Your task to perform on an android device: turn off data saver in the chrome app Image 0: 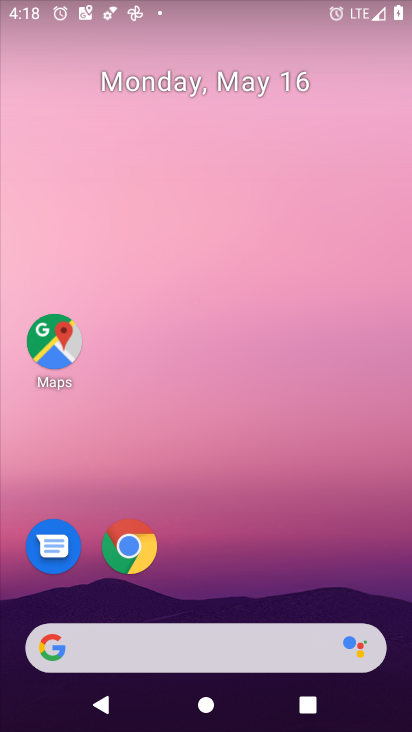
Step 0: drag from (360, 587) to (360, 126)
Your task to perform on an android device: turn off data saver in the chrome app Image 1: 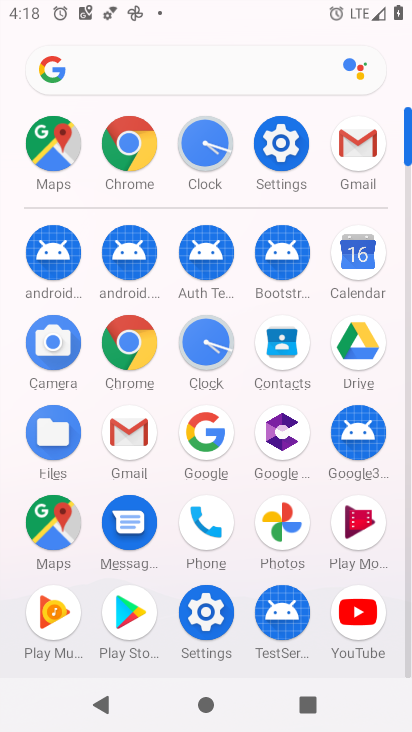
Step 1: click (128, 353)
Your task to perform on an android device: turn off data saver in the chrome app Image 2: 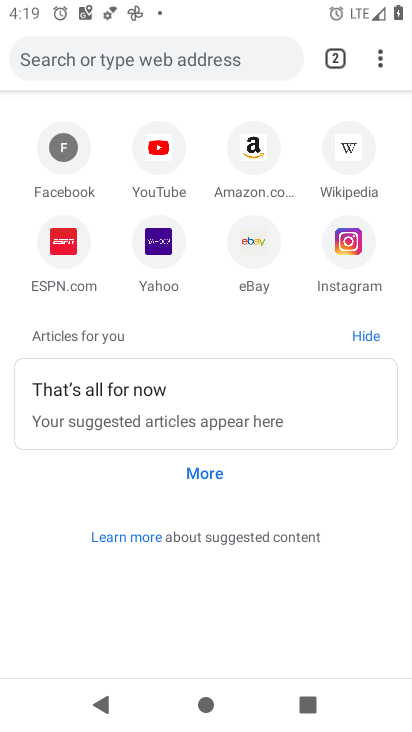
Step 2: click (382, 64)
Your task to perform on an android device: turn off data saver in the chrome app Image 3: 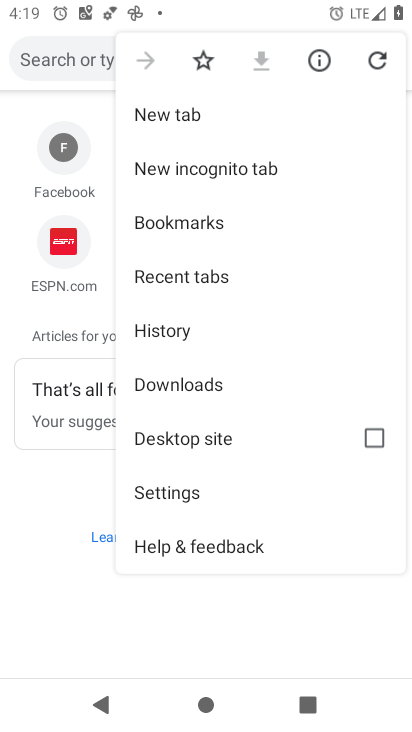
Step 3: drag from (277, 519) to (294, 343)
Your task to perform on an android device: turn off data saver in the chrome app Image 4: 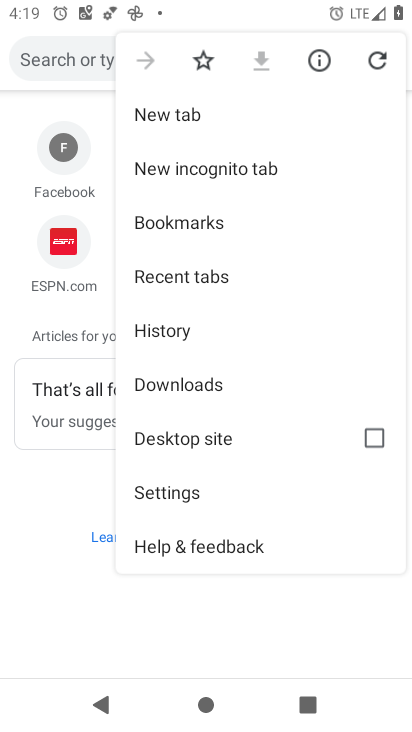
Step 4: click (191, 496)
Your task to perform on an android device: turn off data saver in the chrome app Image 5: 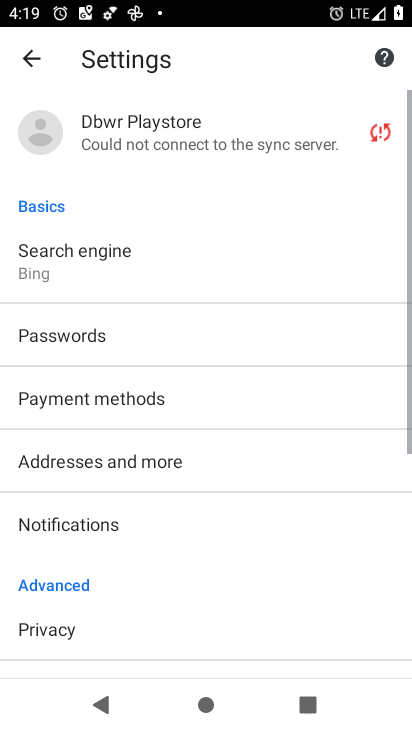
Step 5: drag from (252, 593) to (262, 445)
Your task to perform on an android device: turn off data saver in the chrome app Image 6: 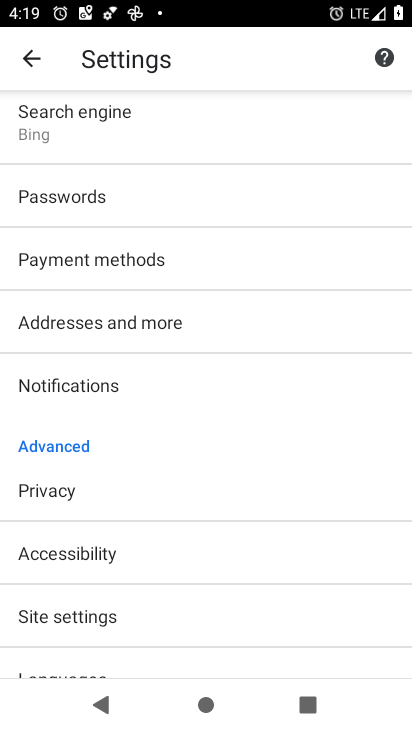
Step 6: drag from (255, 628) to (265, 462)
Your task to perform on an android device: turn off data saver in the chrome app Image 7: 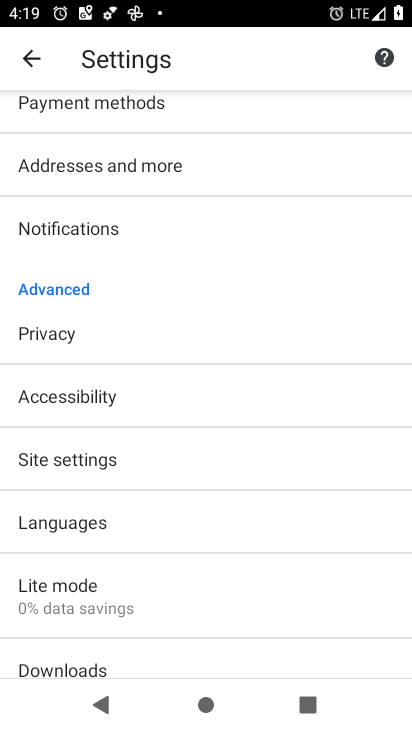
Step 7: drag from (255, 642) to (266, 511)
Your task to perform on an android device: turn off data saver in the chrome app Image 8: 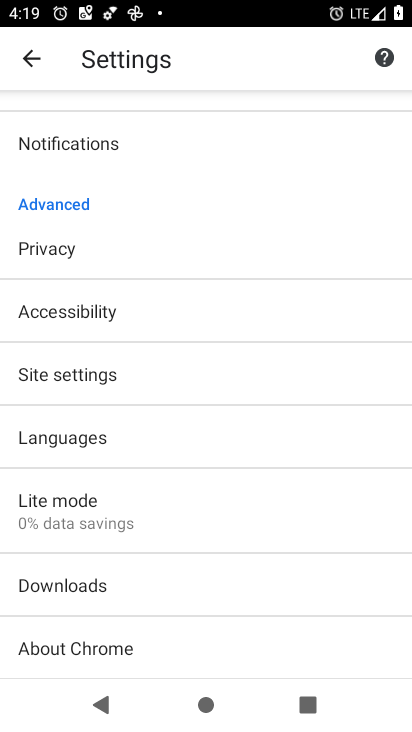
Step 8: drag from (246, 657) to (256, 521)
Your task to perform on an android device: turn off data saver in the chrome app Image 9: 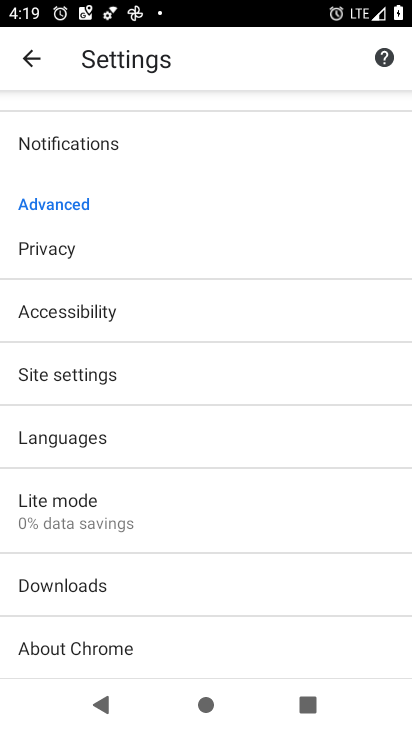
Step 9: drag from (268, 359) to (260, 497)
Your task to perform on an android device: turn off data saver in the chrome app Image 10: 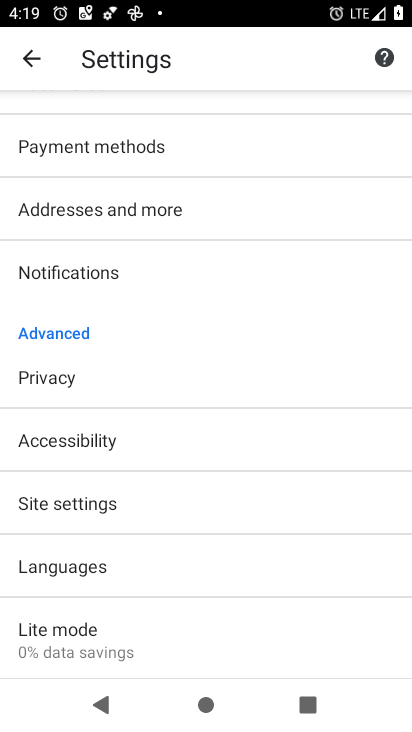
Step 10: drag from (264, 253) to (263, 425)
Your task to perform on an android device: turn off data saver in the chrome app Image 11: 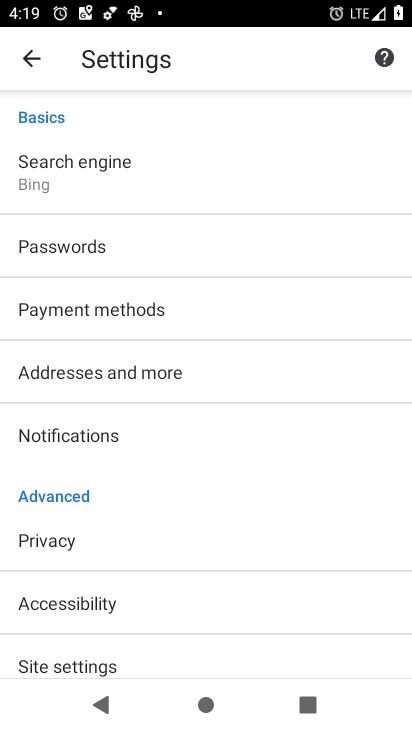
Step 11: drag from (270, 278) to (272, 375)
Your task to perform on an android device: turn off data saver in the chrome app Image 12: 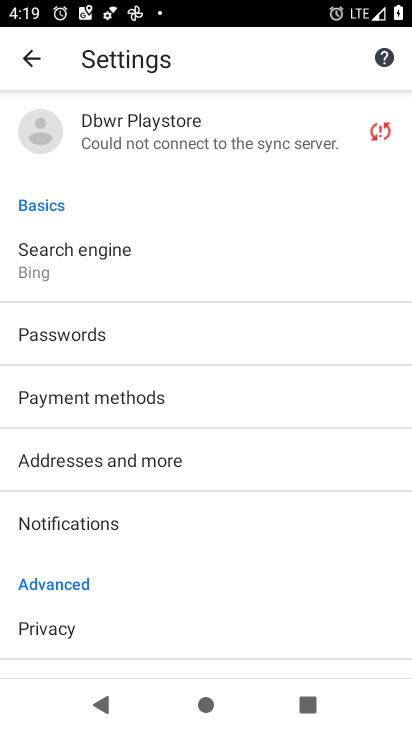
Step 12: drag from (266, 239) to (265, 386)
Your task to perform on an android device: turn off data saver in the chrome app Image 13: 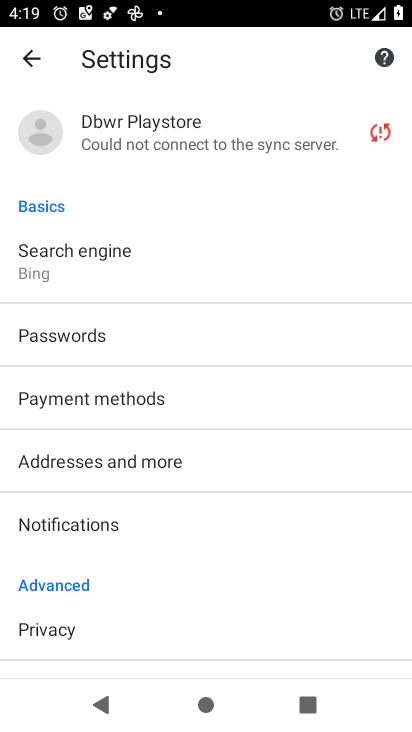
Step 13: drag from (258, 578) to (260, 415)
Your task to perform on an android device: turn off data saver in the chrome app Image 14: 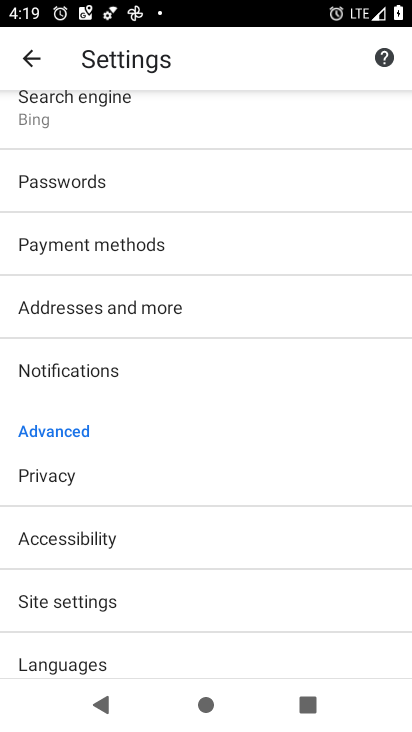
Step 14: drag from (228, 586) to (242, 448)
Your task to perform on an android device: turn off data saver in the chrome app Image 15: 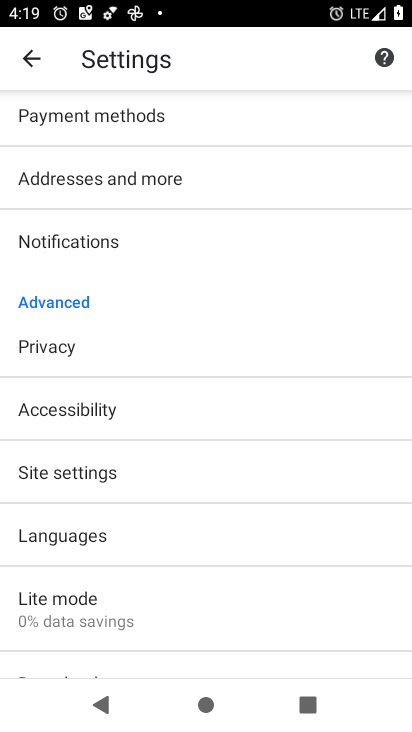
Step 15: drag from (219, 608) to (236, 411)
Your task to perform on an android device: turn off data saver in the chrome app Image 16: 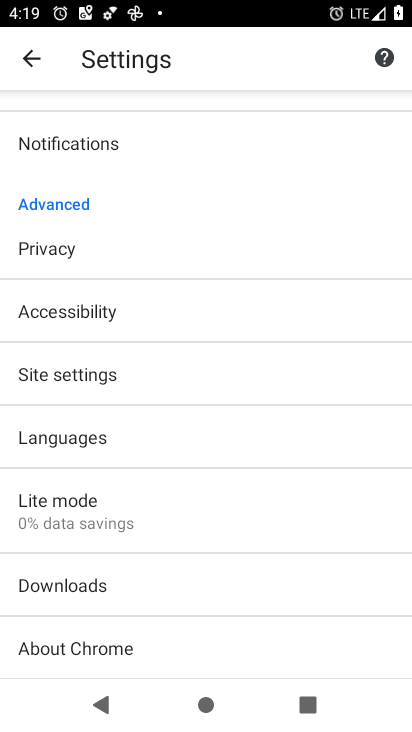
Step 16: click (210, 518)
Your task to perform on an android device: turn off data saver in the chrome app Image 17: 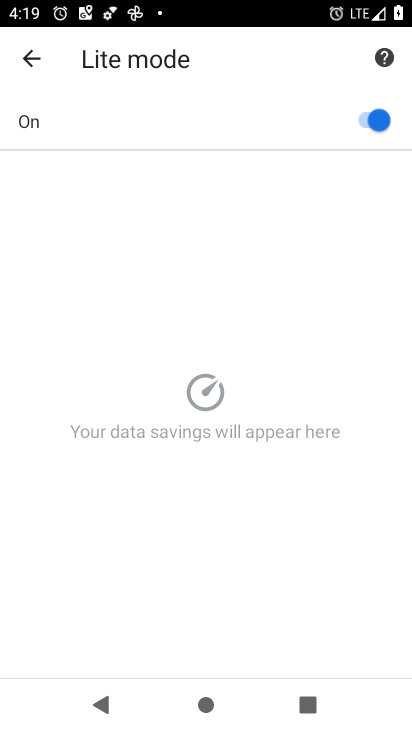
Step 17: click (371, 120)
Your task to perform on an android device: turn off data saver in the chrome app Image 18: 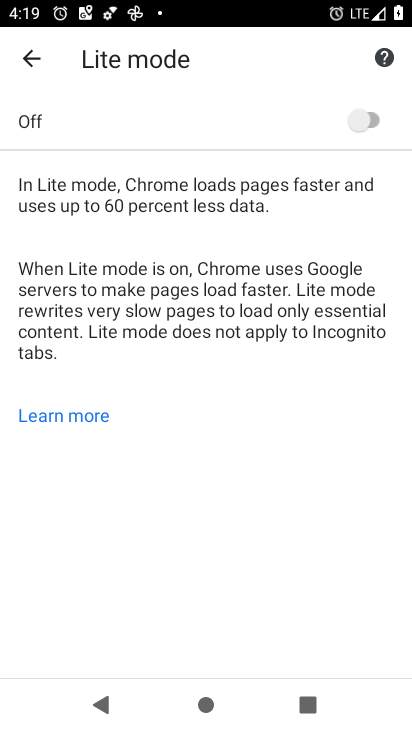
Step 18: task complete